Your task to perform on an android device: Open Yahoo.com Image 0: 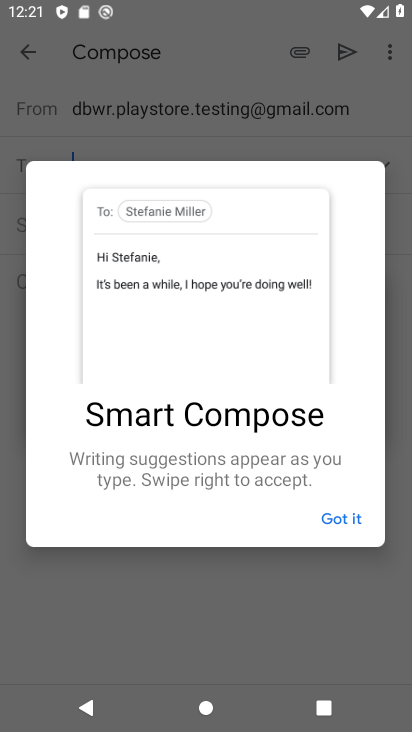
Step 0: press home button
Your task to perform on an android device: Open Yahoo.com Image 1: 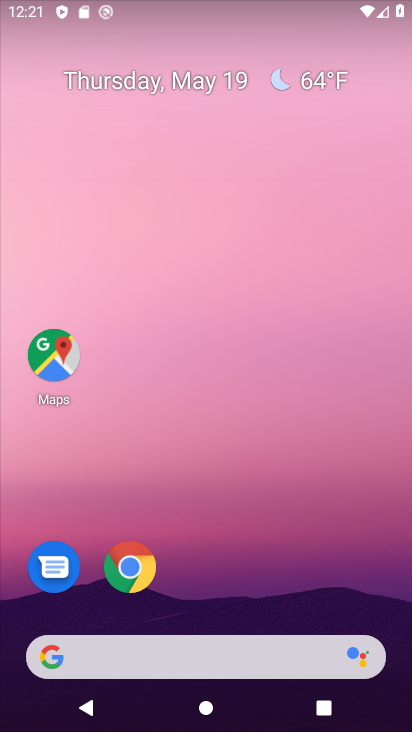
Step 1: click (134, 573)
Your task to perform on an android device: Open Yahoo.com Image 2: 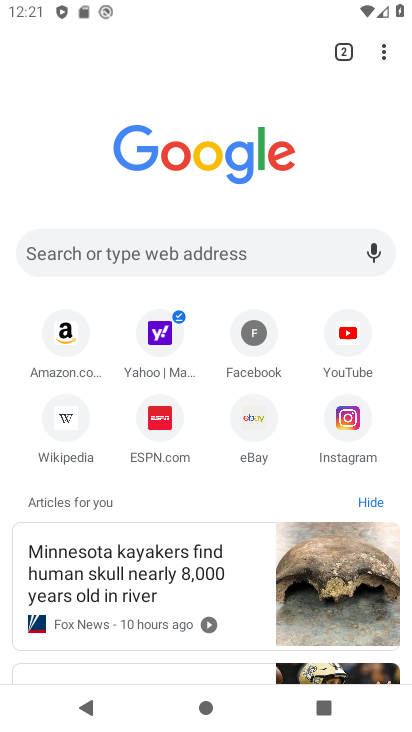
Step 2: click (164, 336)
Your task to perform on an android device: Open Yahoo.com Image 3: 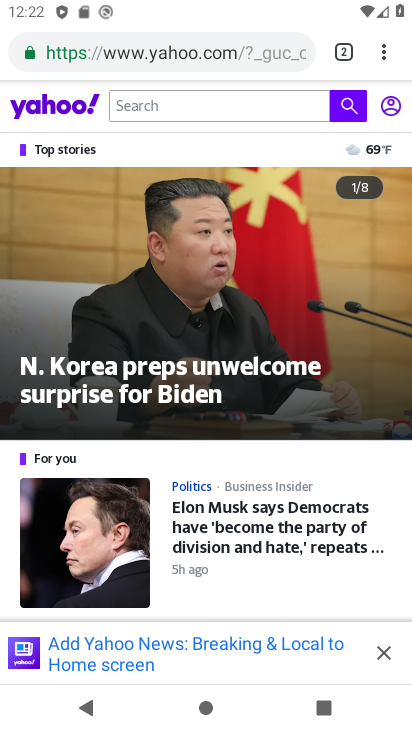
Step 3: task complete